Your task to perform on an android device: Search for pizza restaurants on Maps Image 0: 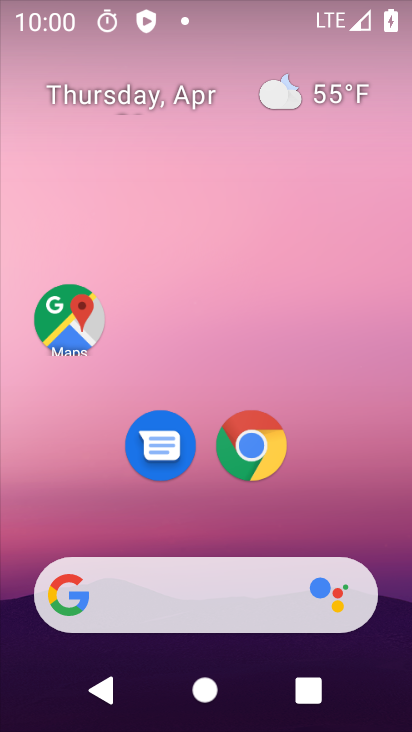
Step 0: click (62, 321)
Your task to perform on an android device: Search for pizza restaurants on Maps Image 1: 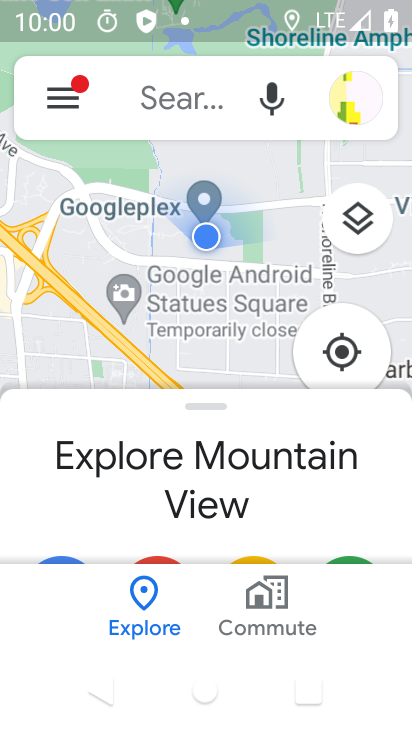
Step 1: click (143, 96)
Your task to perform on an android device: Search for pizza restaurants on Maps Image 2: 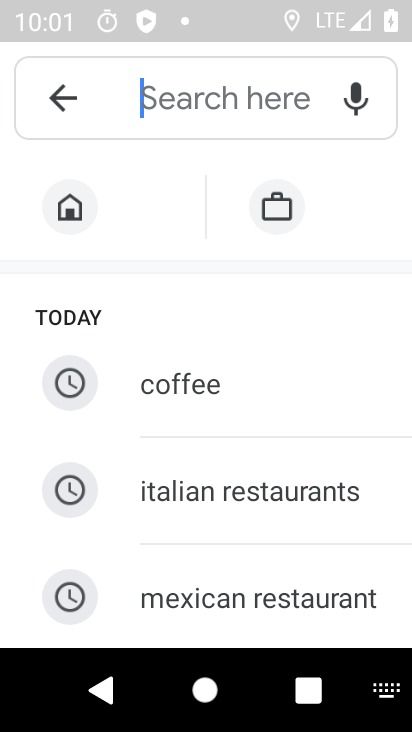
Step 2: type "pizza restaurant"
Your task to perform on an android device: Search for pizza restaurants on Maps Image 3: 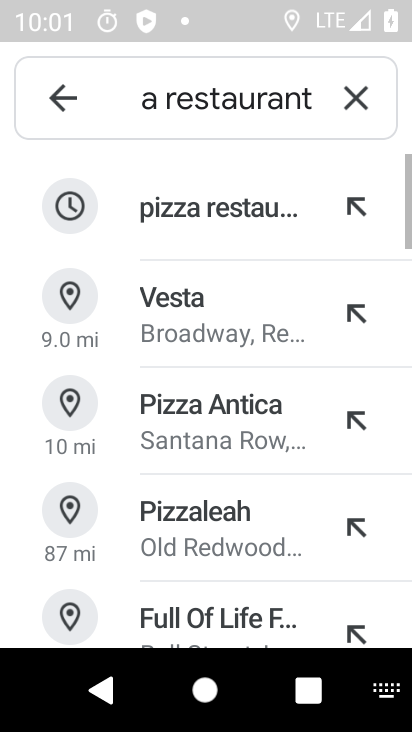
Step 3: click (186, 222)
Your task to perform on an android device: Search for pizza restaurants on Maps Image 4: 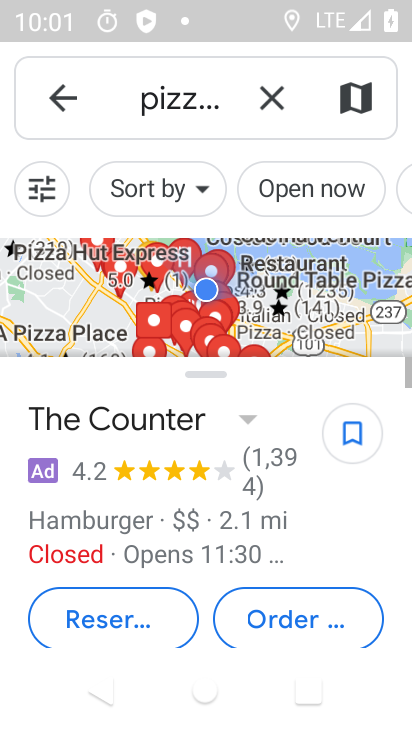
Step 4: task complete